Your task to perform on an android device: Open the phone app and click the voicemail tab. Image 0: 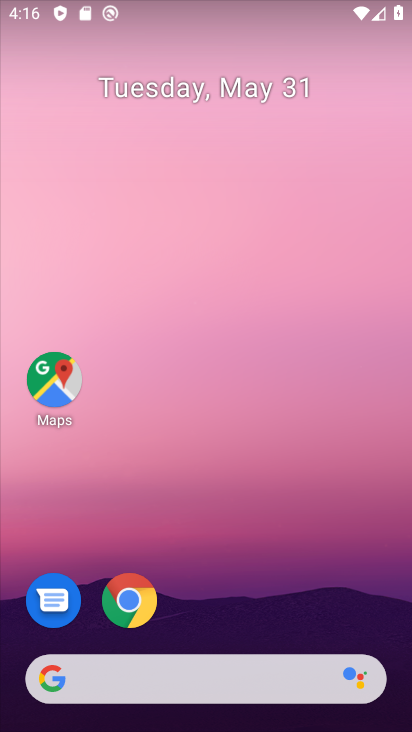
Step 0: drag from (209, 648) to (294, 153)
Your task to perform on an android device: Open the phone app and click the voicemail tab. Image 1: 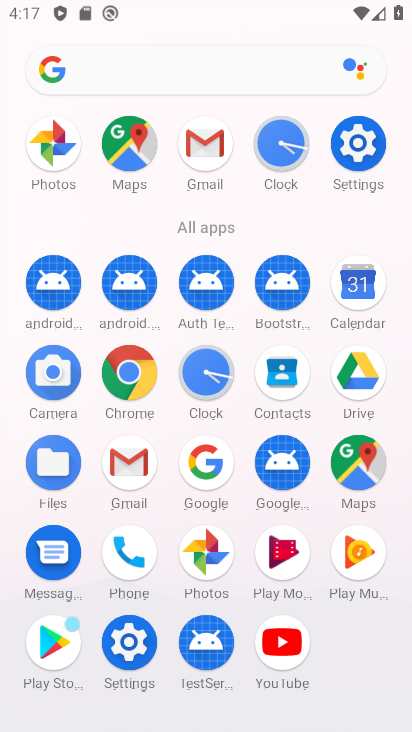
Step 1: click (122, 549)
Your task to perform on an android device: Open the phone app and click the voicemail tab. Image 2: 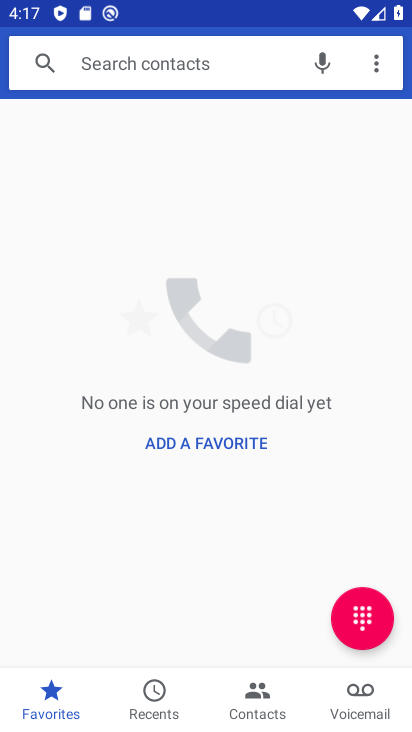
Step 2: click (351, 691)
Your task to perform on an android device: Open the phone app and click the voicemail tab. Image 3: 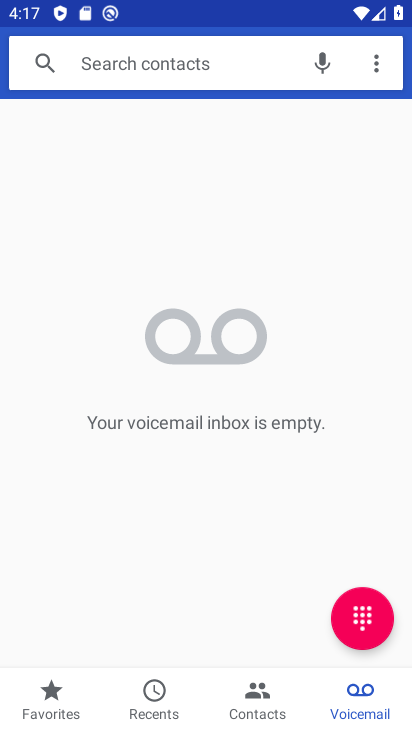
Step 3: task complete